Your task to perform on an android device: make emails show in primary in the gmail app Image 0: 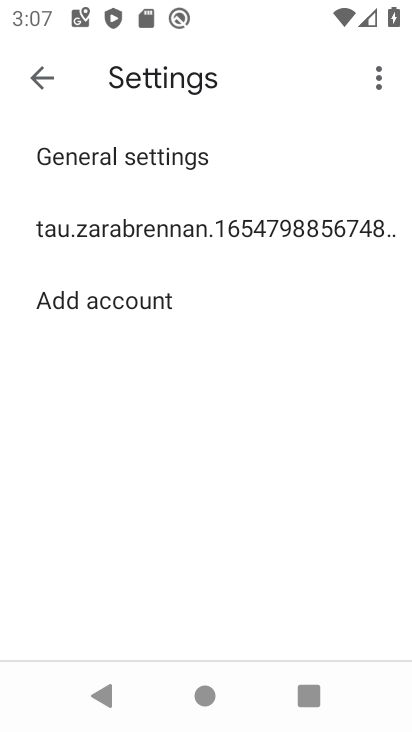
Step 0: click (145, 233)
Your task to perform on an android device: make emails show in primary in the gmail app Image 1: 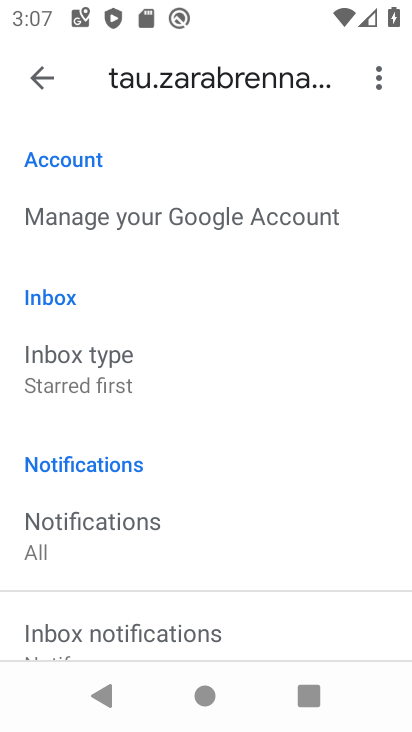
Step 1: task complete